Your task to perform on an android device: turn on showing notifications on the lock screen Image 0: 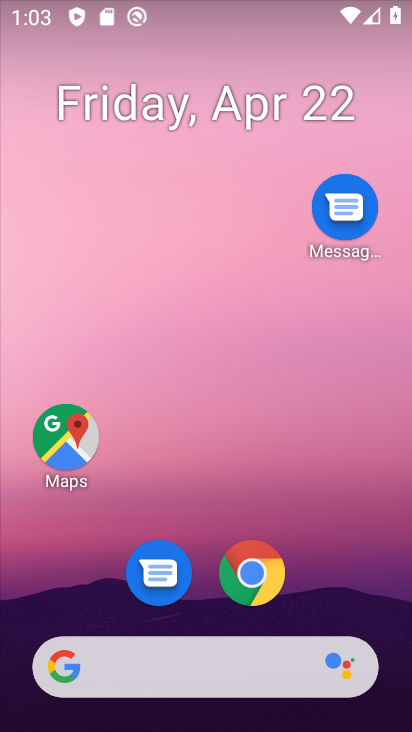
Step 0: click (284, 177)
Your task to perform on an android device: turn on showing notifications on the lock screen Image 1: 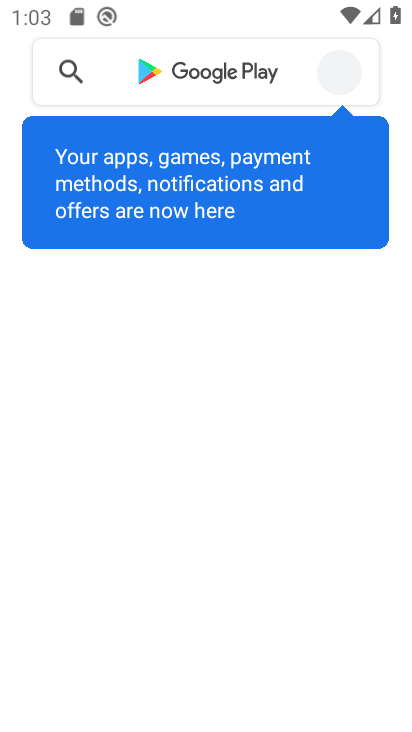
Step 1: press home button
Your task to perform on an android device: turn on showing notifications on the lock screen Image 2: 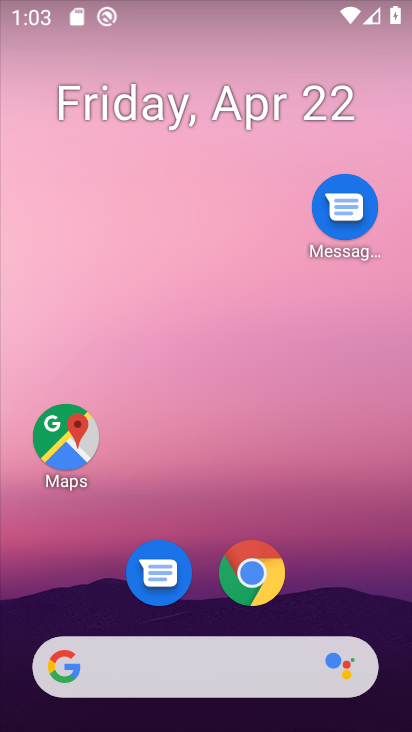
Step 2: drag from (322, 502) to (306, 119)
Your task to perform on an android device: turn on showing notifications on the lock screen Image 3: 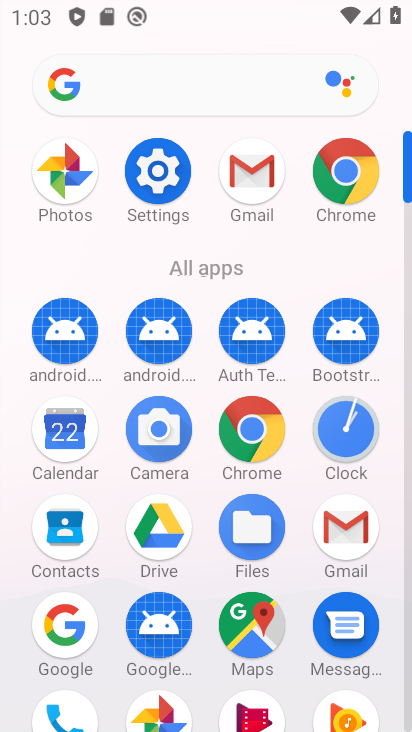
Step 3: click (176, 176)
Your task to perform on an android device: turn on showing notifications on the lock screen Image 4: 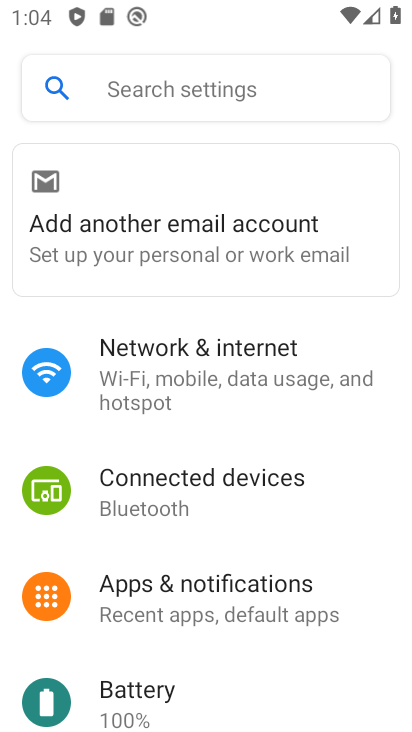
Step 4: click (224, 610)
Your task to perform on an android device: turn on showing notifications on the lock screen Image 5: 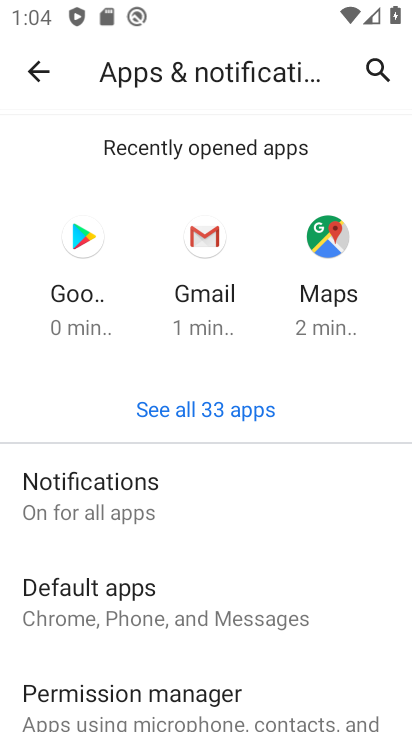
Step 5: click (135, 511)
Your task to perform on an android device: turn on showing notifications on the lock screen Image 6: 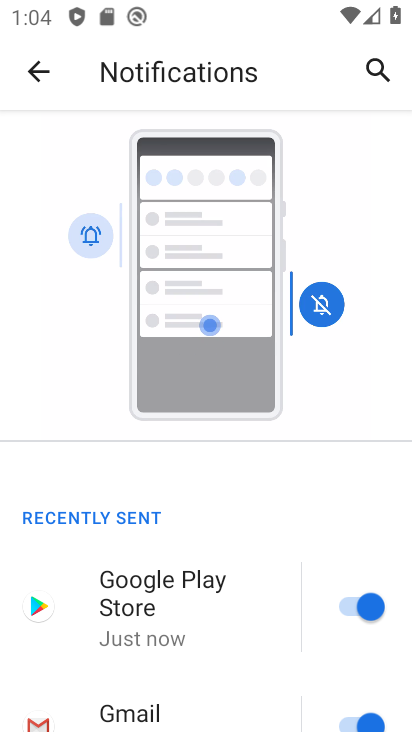
Step 6: drag from (208, 666) to (237, 317)
Your task to perform on an android device: turn on showing notifications on the lock screen Image 7: 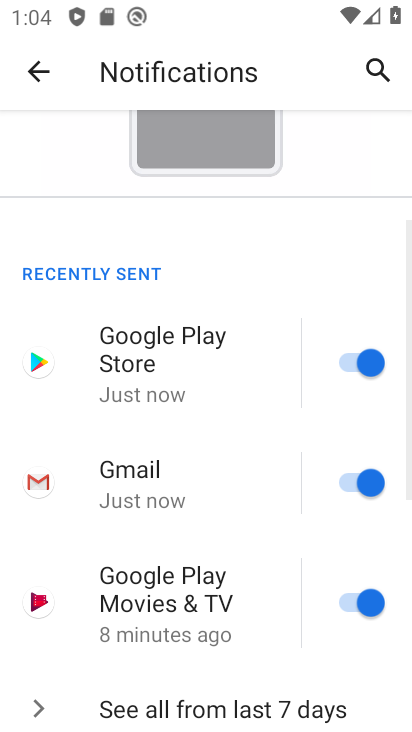
Step 7: drag from (266, 644) to (278, 294)
Your task to perform on an android device: turn on showing notifications on the lock screen Image 8: 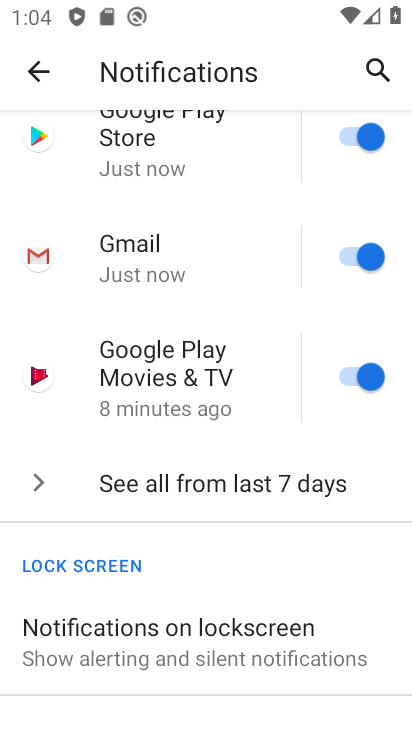
Step 8: click (99, 655)
Your task to perform on an android device: turn on showing notifications on the lock screen Image 9: 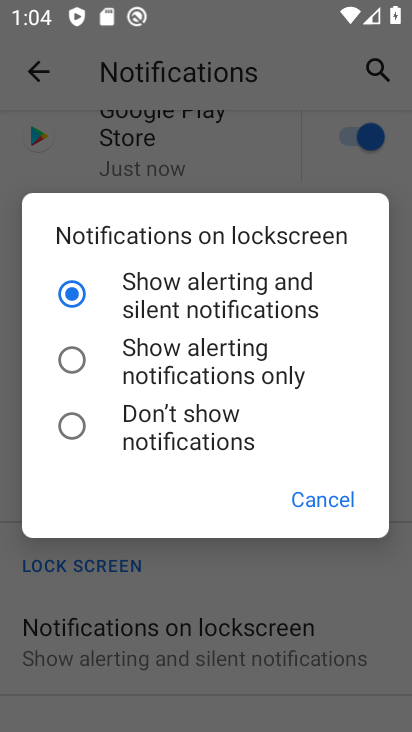
Step 9: task complete